Your task to perform on an android device: turn on bluetooth scan Image 0: 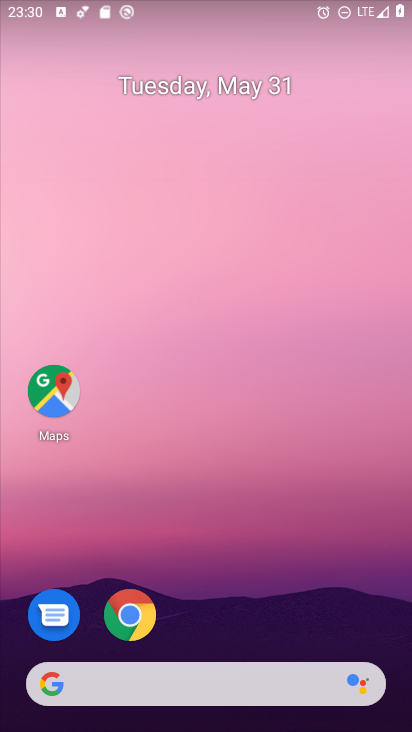
Step 0: drag from (387, 642) to (303, 68)
Your task to perform on an android device: turn on bluetooth scan Image 1: 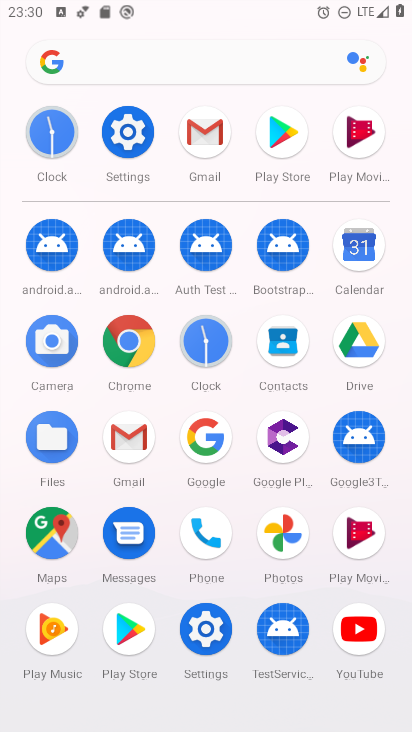
Step 1: click (208, 628)
Your task to perform on an android device: turn on bluetooth scan Image 2: 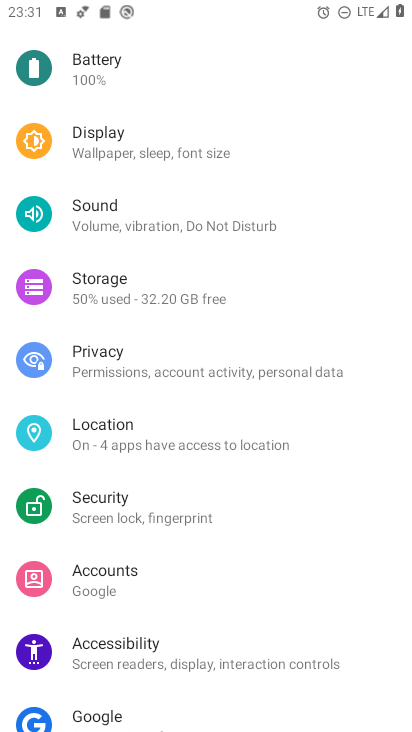
Step 2: drag from (347, 205) to (330, 269)
Your task to perform on an android device: turn on bluetooth scan Image 3: 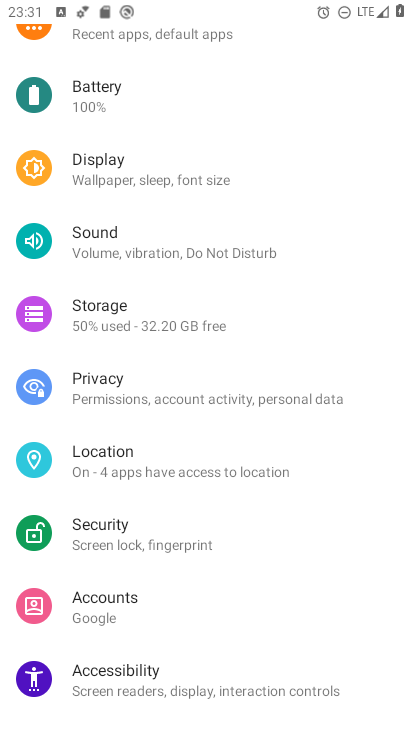
Step 3: click (110, 467)
Your task to perform on an android device: turn on bluetooth scan Image 4: 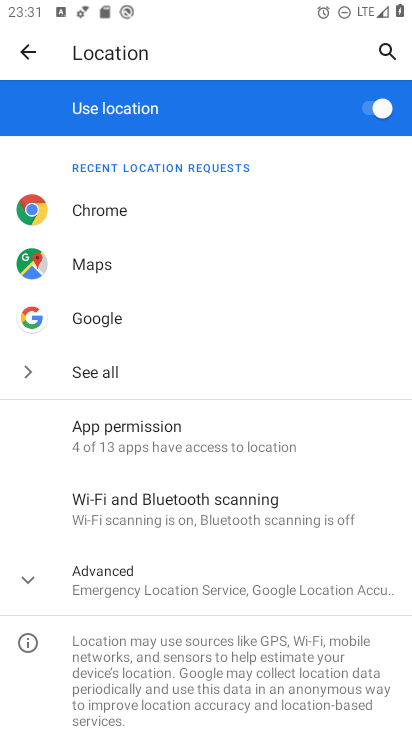
Step 4: click (137, 503)
Your task to perform on an android device: turn on bluetooth scan Image 5: 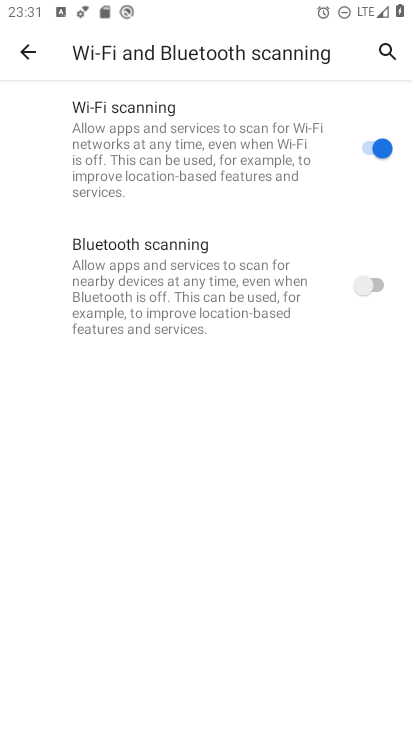
Step 5: click (378, 282)
Your task to perform on an android device: turn on bluetooth scan Image 6: 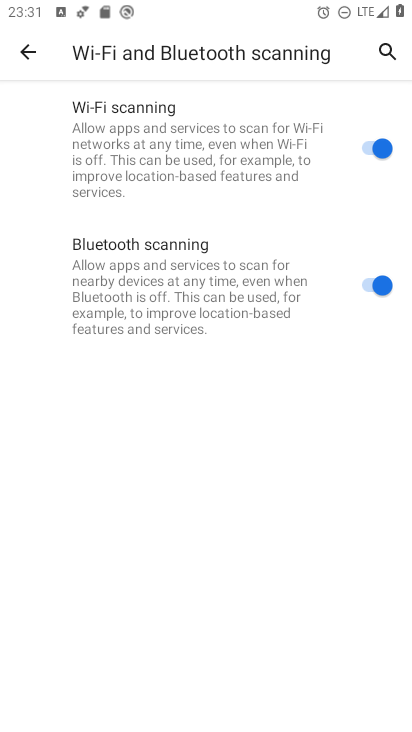
Step 6: task complete